Your task to perform on an android device: turn notification dots on Image 0: 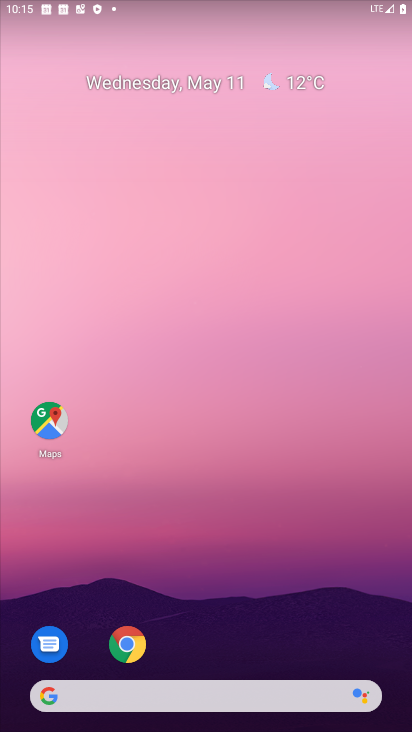
Step 0: drag from (281, 613) to (409, 28)
Your task to perform on an android device: turn notification dots on Image 1: 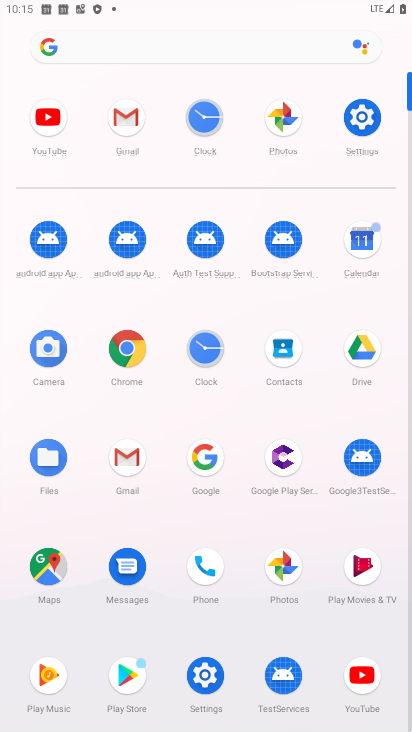
Step 1: click (351, 176)
Your task to perform on an android device: turn notification dots on Image 2: 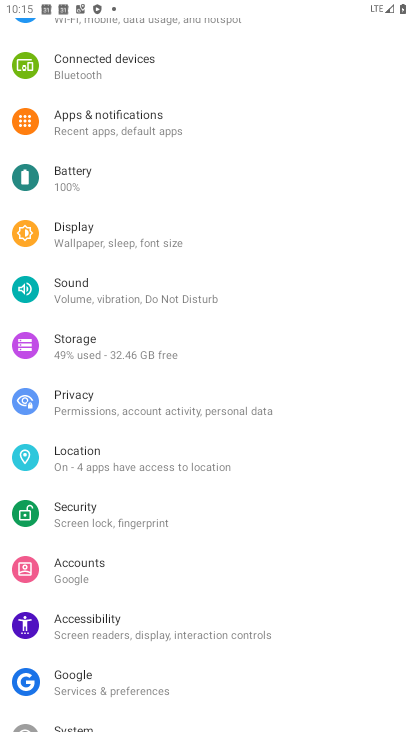
Step 2: drag from (179, 549) to (210, 354)
Your task to perform on an android device: turn notification dots on Image 3: 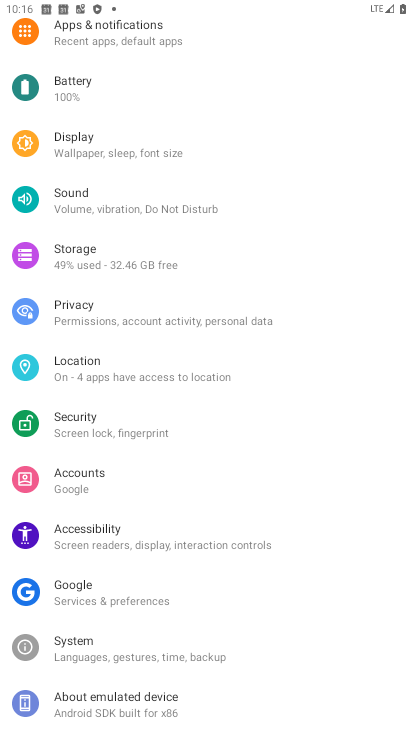
Step 3: click (132, 53)
Your task to perform on an android device: turn notification dots on Image 4: 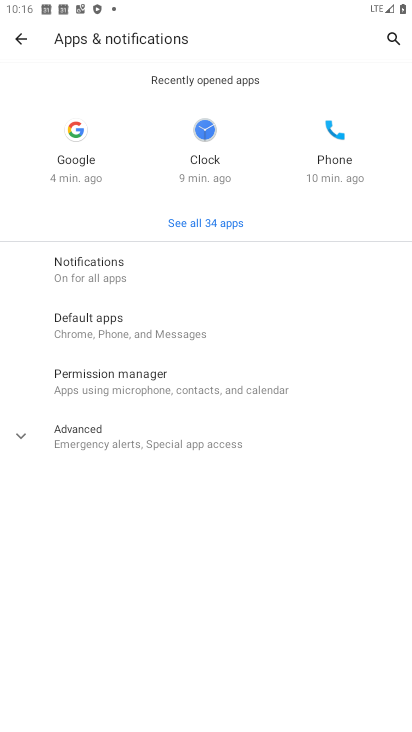
Step 4: click (221, 278)
Your task to perform on an android device: turn notification dots on Image 5: 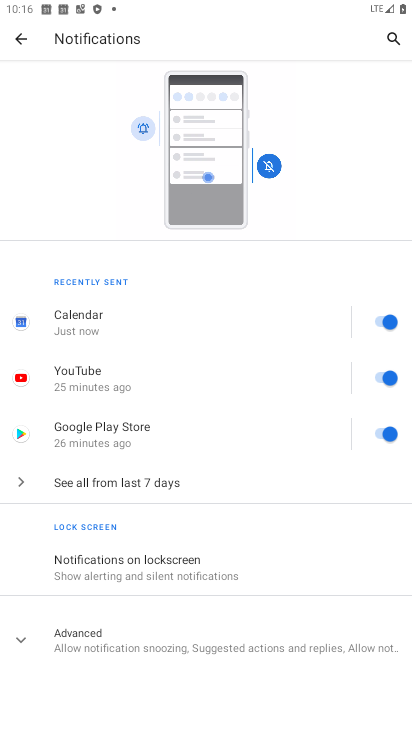
Step 5: drag from (225, 565) to (242, 176)
Your task to perform on an android device: turn notification dots on Image 6: 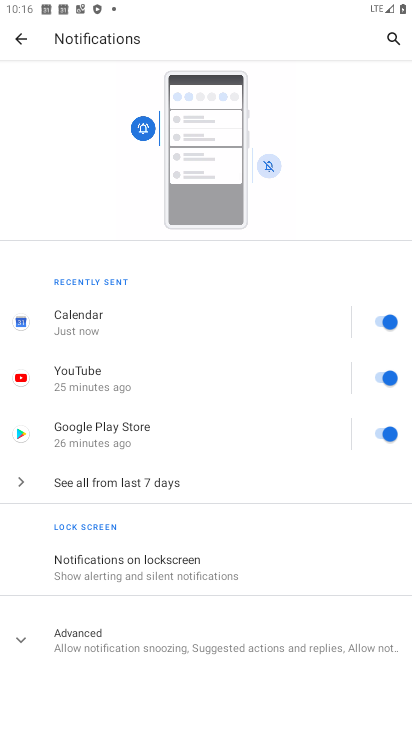
Step 6: click (202, 652)
Your task to perform on an android device: turn notification dots on Image 7: 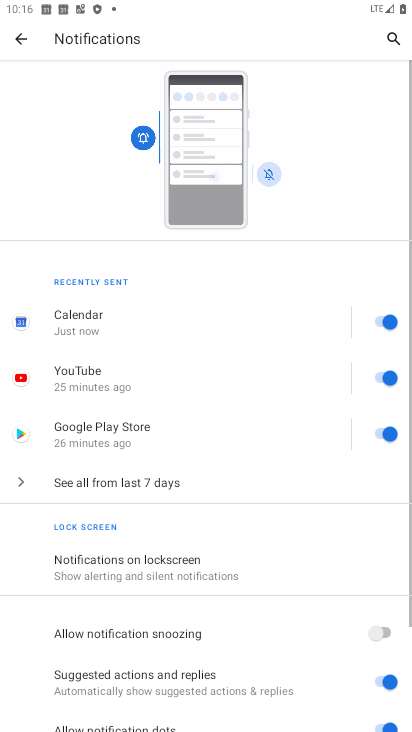
Step 7: task complete